Your task to perform on an android device: change your default location settings in chrome Image 0: 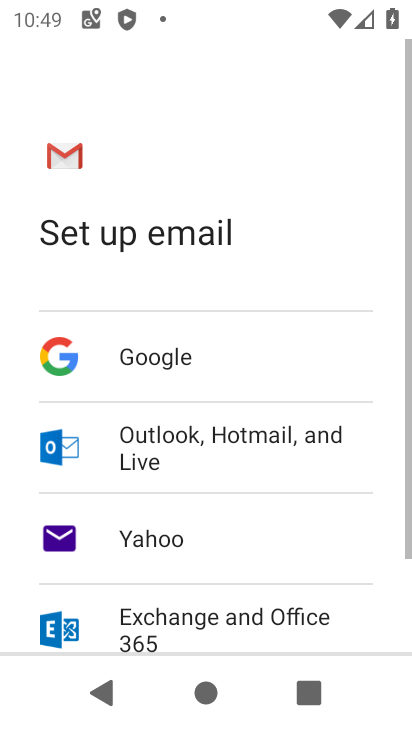
Step 0: press home button
Your task to perform on an android device: change your default location settings in chrome Image 1: 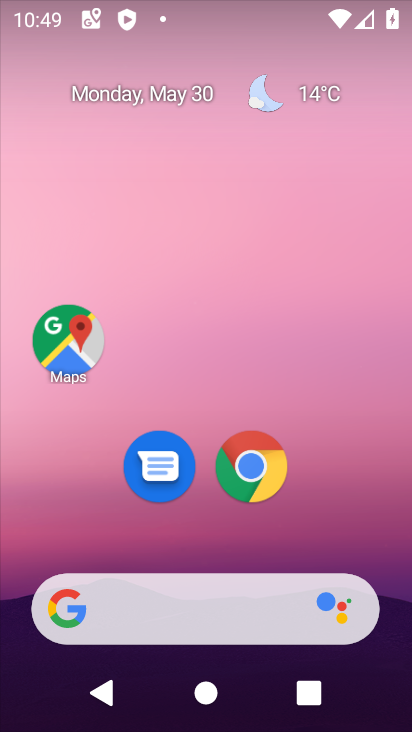
Step 1: click (266, 468)
Your task to perform on an android device: change your default location settings in chrome Image 2: 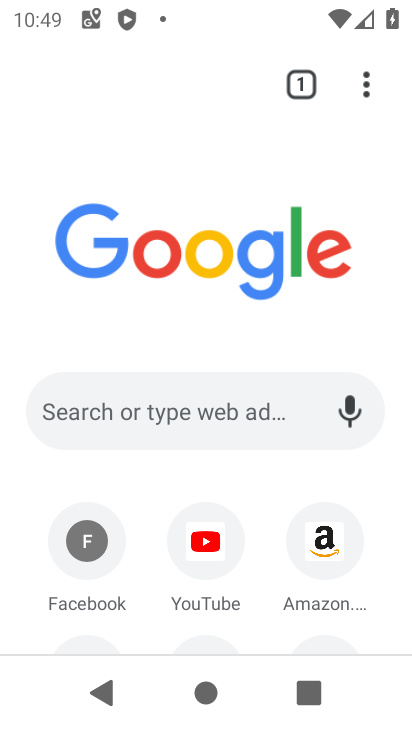
Step 2: click (363, 79)
Your task to perform on an android device: change your default location settings in chrome Image 3: 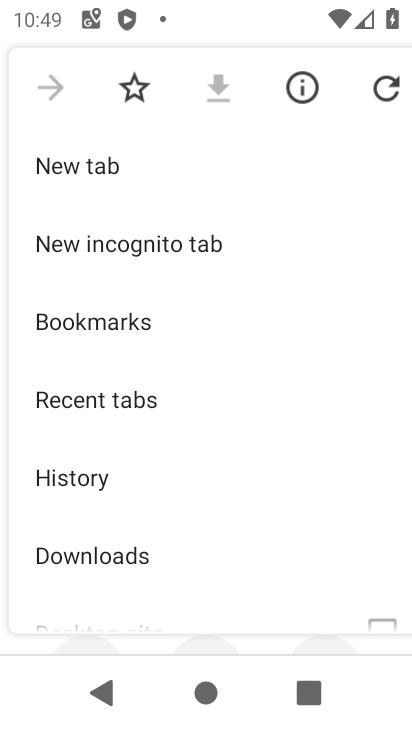
Step 3: drag from (179, 560) to (138, 368)
Your task to perform on an android device: change your default location settings in chrome Image 4: 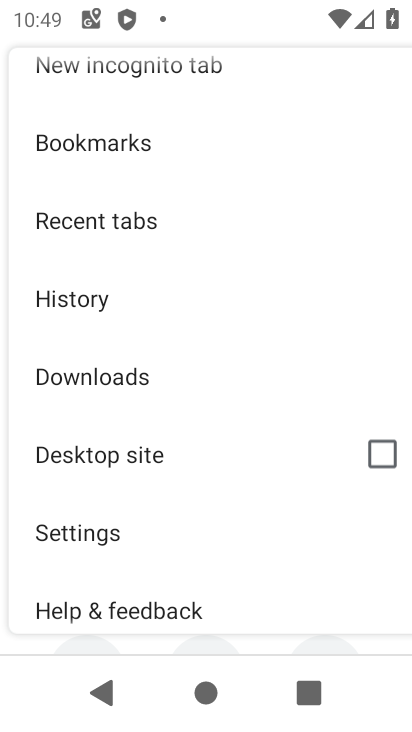
Step 4: click (96, 538)
Your task to perform on an android device: change your default location settings in chrome Image 5: 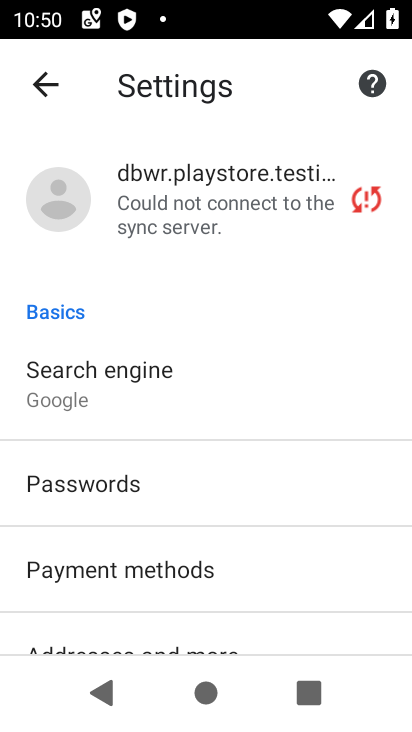
Step 5: drag from (166, 635) to (120, 106)
Your task to perform on an android device: change your default location settings in chrome Image 6: 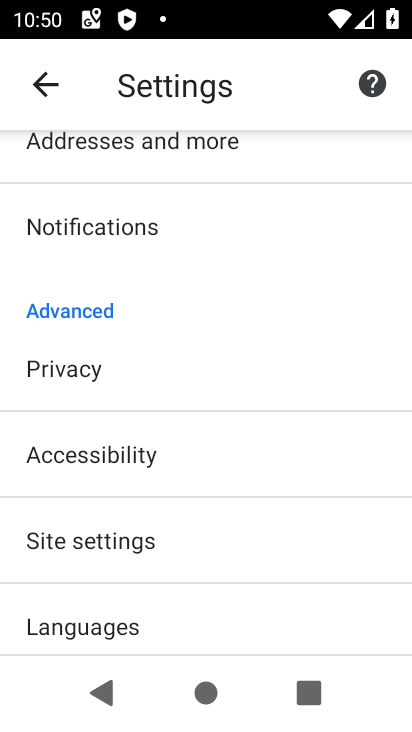
Step 6: click (87, 547)
Your task to perform on an android device: change your default location settings in chrome Image 7: 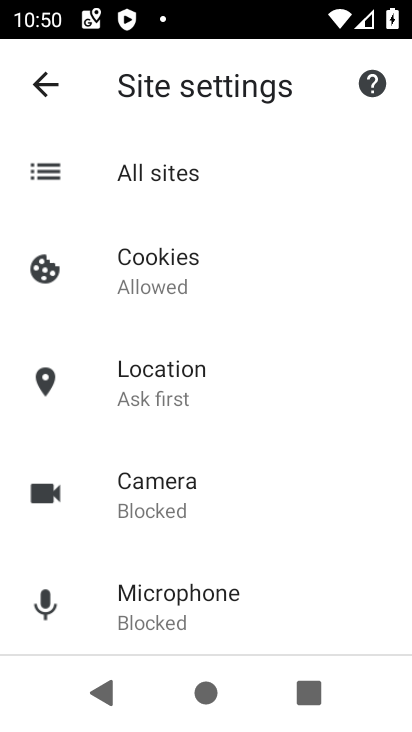
Step 7: click (179, 376)
Your task to perform on an android device: change your default location settings in chrome Image 8: 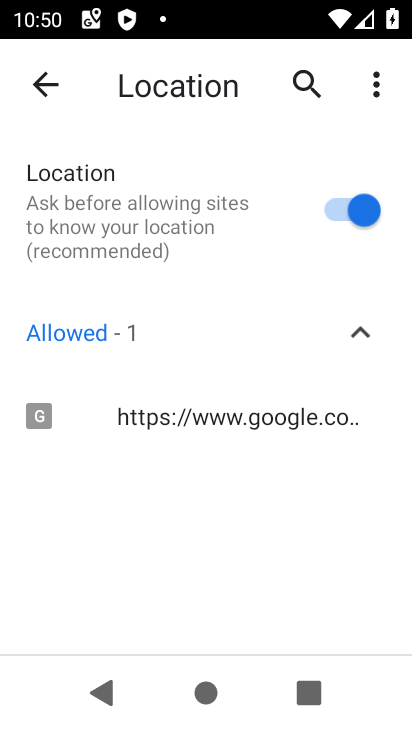
Step 8: click (356, 220)
Your task to perform on an android device: change your default location settings in chrome Image 9: 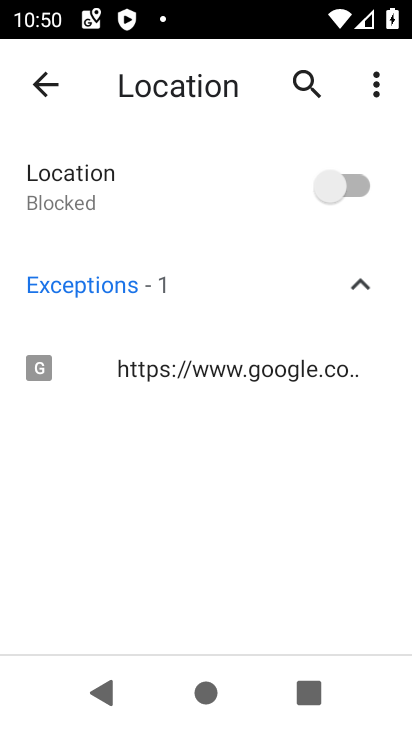
Step 9: task complete